Your task to perform on an android device: turn pop-ups on in chrome Image 0: 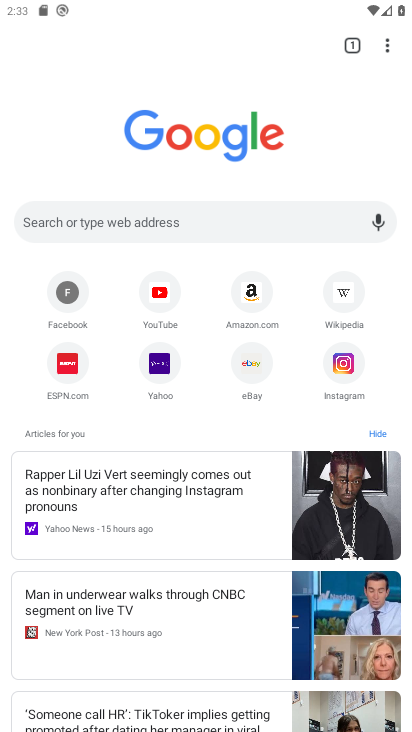
Step 0: click (388, 40)
Your task to perform on an android device: turn pop-ups on in chrome Image 1: 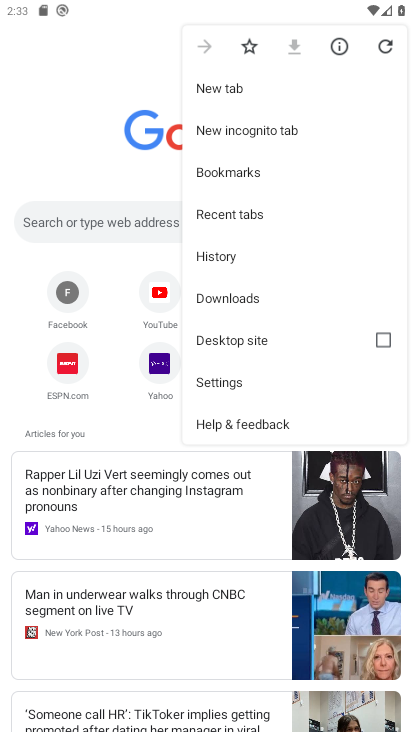
Step 1: click (234, 381)
Your task to perform on an android device: turn pop-ups on in chrome Image 2: 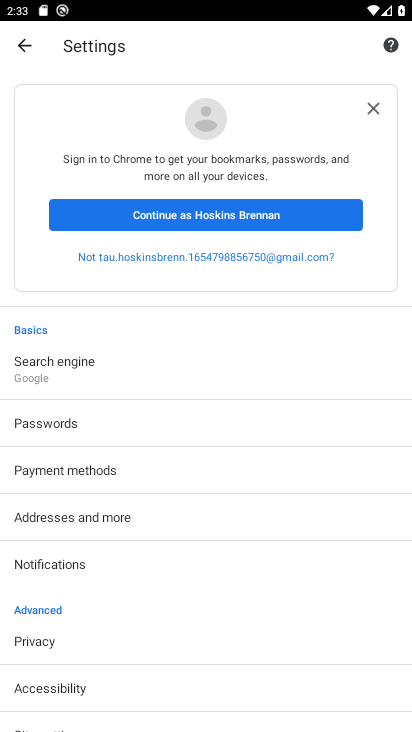
Step 2: drag from (180, 586) to (165, 301)
Your task to perform on an android device: turn pop-ups on in chrome Image 3: 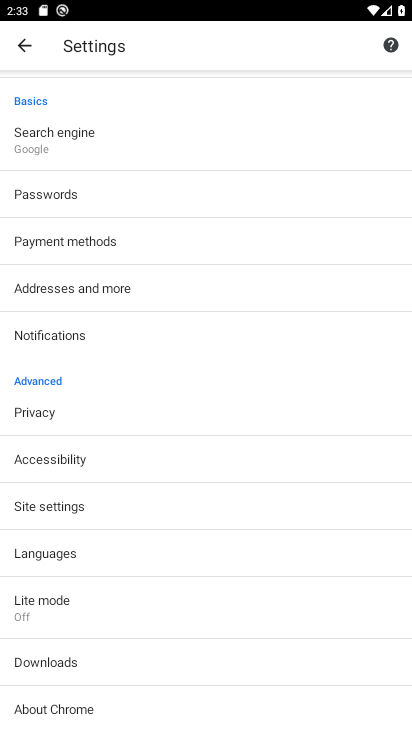
Step 3: click (49, 505)
Your task to perform on an android device: turn pop-ups on in chrome Image 4: 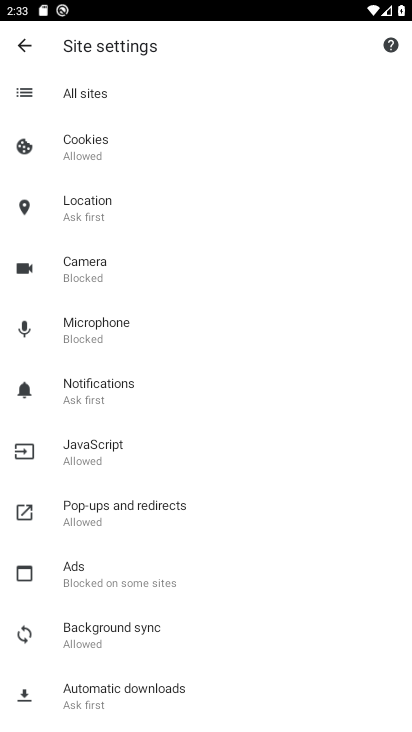
Step 4: click (108, 502)
Your task to perform on an android device: turn pop-ups on in chrome Image 5: 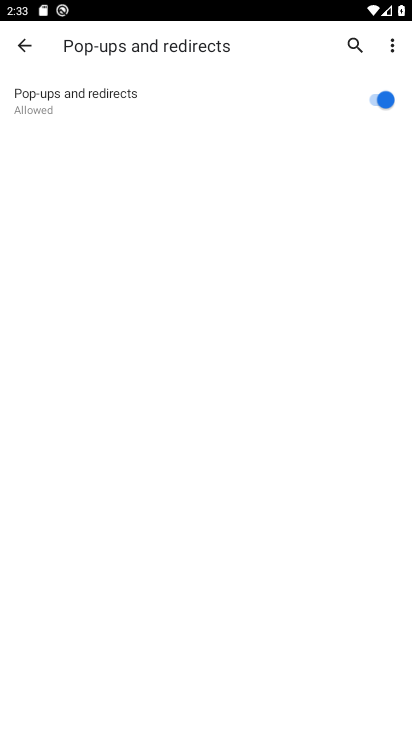
Step 5: task complete